Your task to perform on an android device: make emails show in primary in the gmail app Image 0: 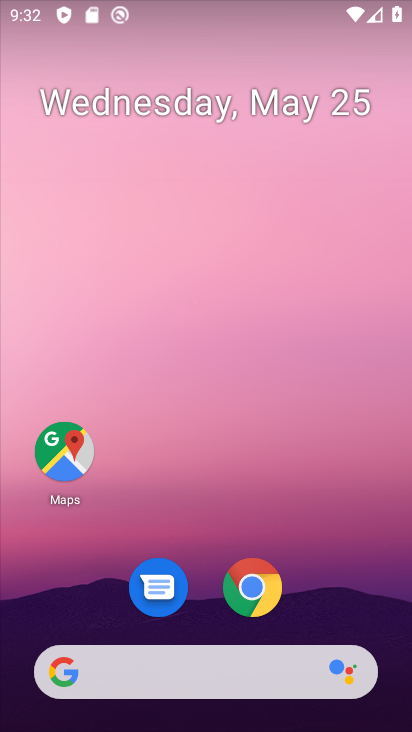
Step 0: drag from (203, 619) to (252, 65)
Your task to perform on an android device: make emails show in primary in the gmail app Image 1: 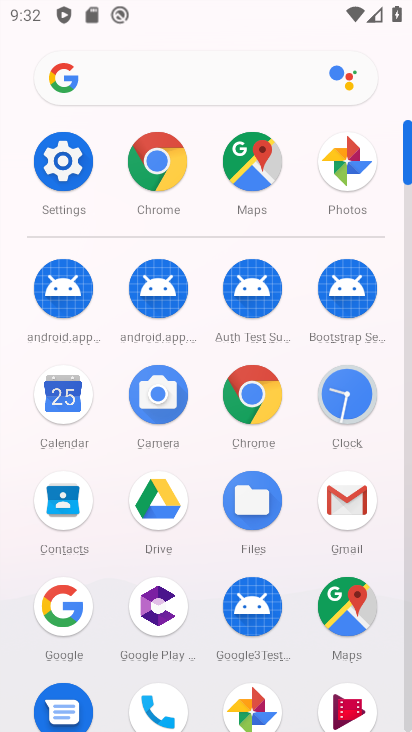
Step 1: click (356, 504)
Your task to perform on an android device: make emails show in primary in the gmail app Image 2: 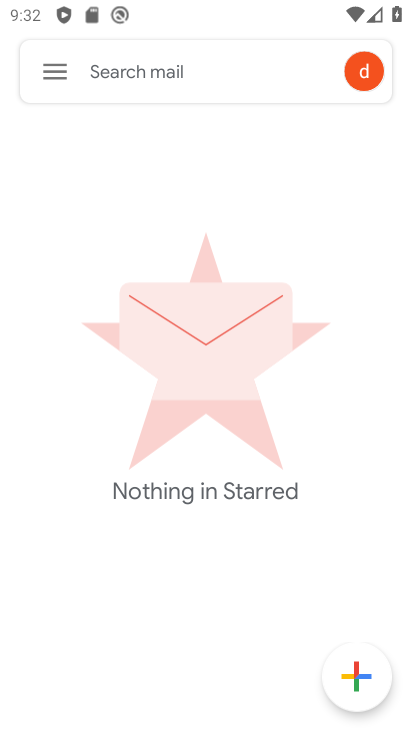
Step 2: click (51, 65)
Your task to perform on an android device: make emails show in primary in the gmail app Image 3: 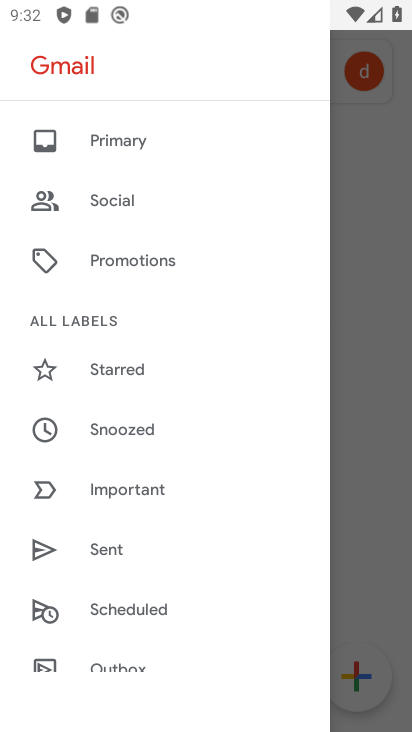
Step 3: drag from (139, 645) to (136, 397)
Your task to perform on an android device: make emails show in primary in the gmail app Image 4: 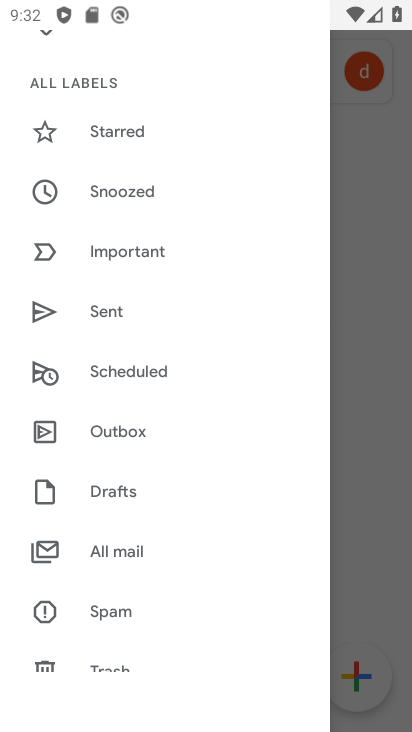
Step 4: drag from (125, 586) to (166, 133)
Your task to perform on an android device: make emails show in primary in the gmail app Image 5: 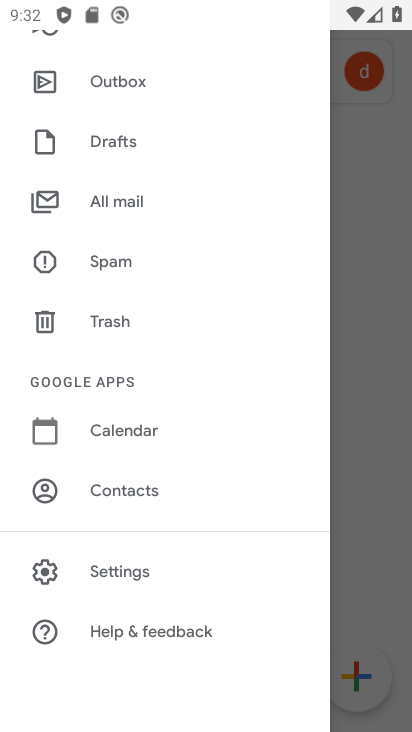
Step 5: click (123, 572)
Your task to perform on an android device: make emails show in primary in the gmail app Image 6: 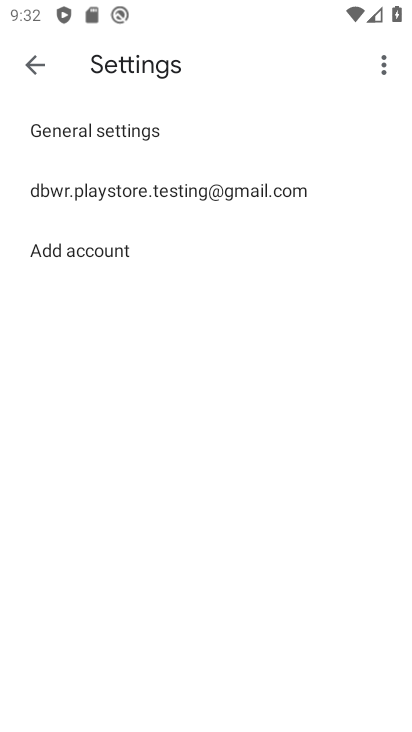
Step 6: click (99, 193)
Your task to perform on an android device: make emails show in primary in the gmail app Image 7: 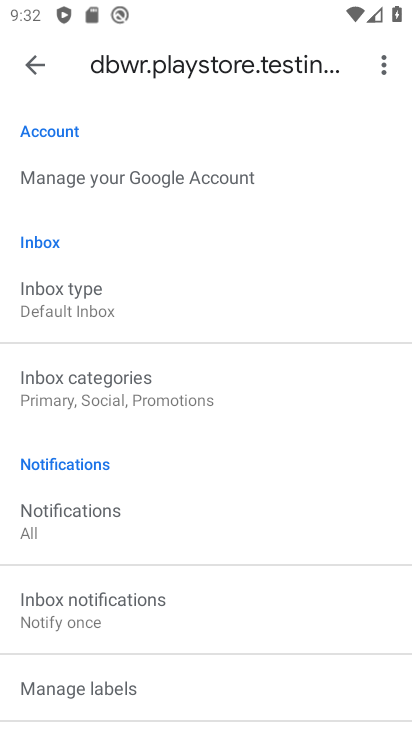
Step 7: click (81, 312)
Your task to perform on an android device: make emails show in primary in the gmail app Image 8: 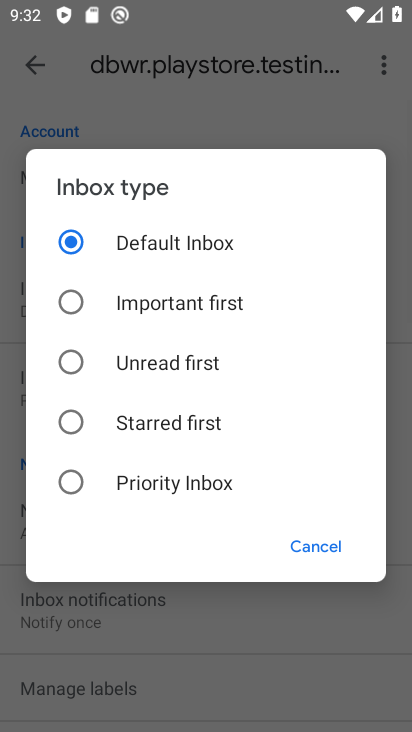
Step 8: click (81, 674)
Your task to perform on an android device: make emails show in primary in the gmail app Image 9: 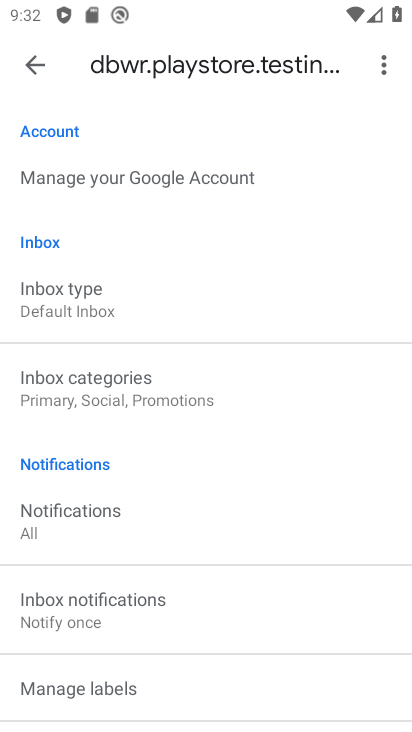
Step 9: click (99, 392)
Your task to perform on an android device: make emails show in primary in the gmail app Image 10: 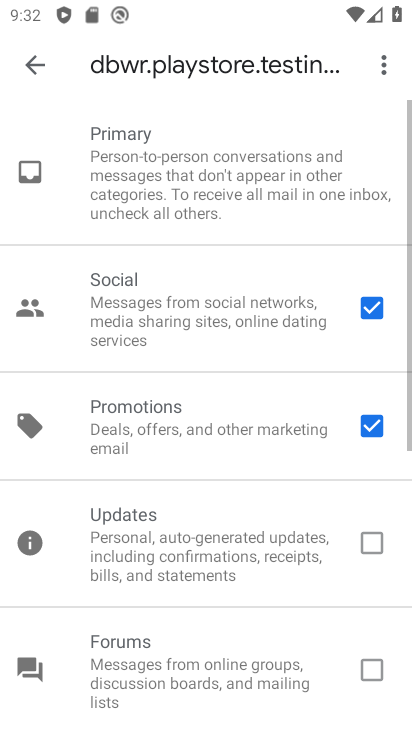
Step 10: click (374, 316)
Your task to perform on an android device: make emails show in primary in the gmail app Image 11: 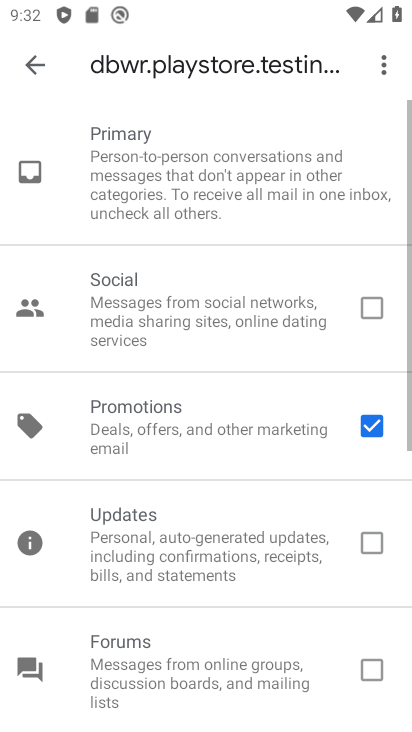
Step 11: click (370, 417)
Your task to perform on an android device: make emails show in primary in the gmail app Image 12: 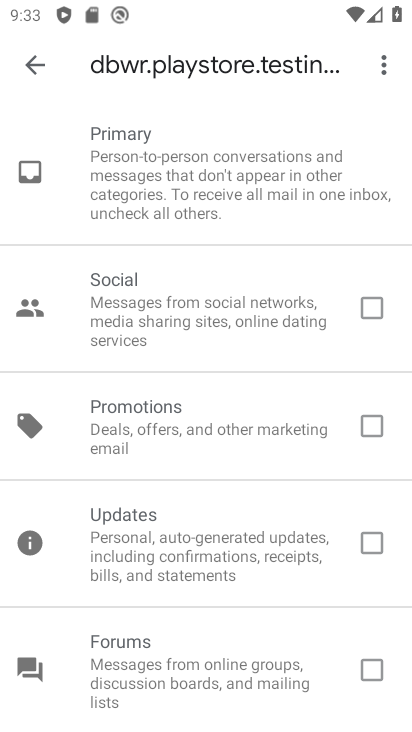
Step 12: task complete